Your task to perform on an android device: Open internet settings Image 0: 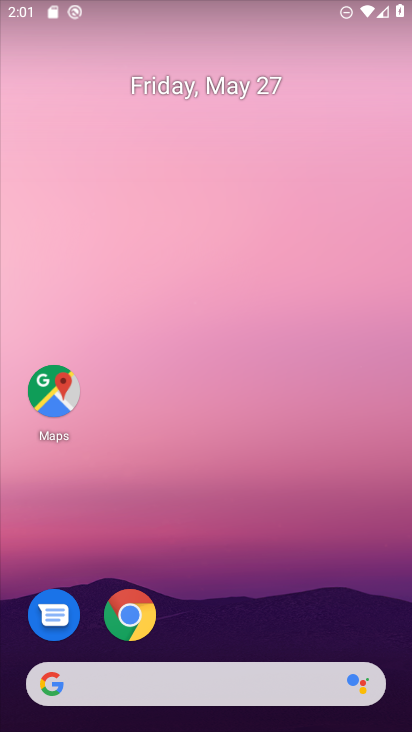
Step 0: drag from (176, 641) to (68, 51)
Your task to perform on an android device: Open internet settings Image 1: 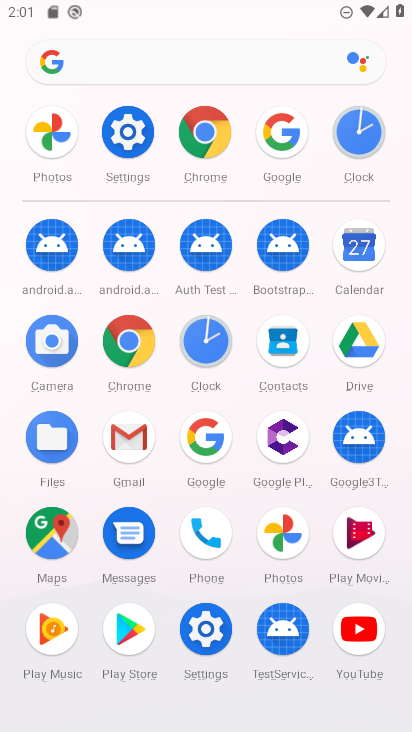
Step 1: click (219, 647)
Your task to perform on an android device: Open internet settings Image 2: 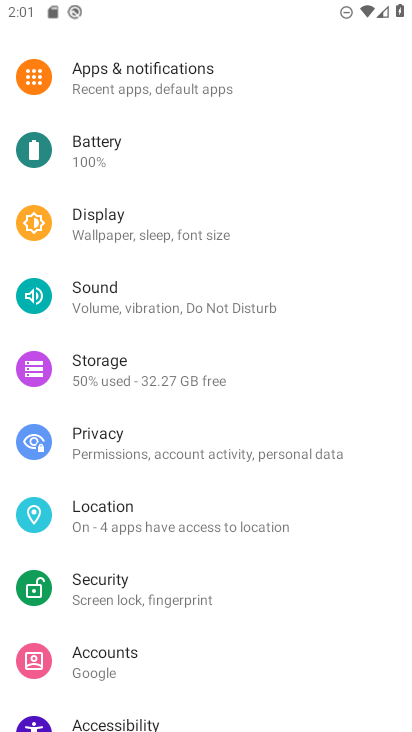
Step 2: drag from (210, 155) to (298, 702)
Your task to perform on an android device: Open internet settings Image 3: 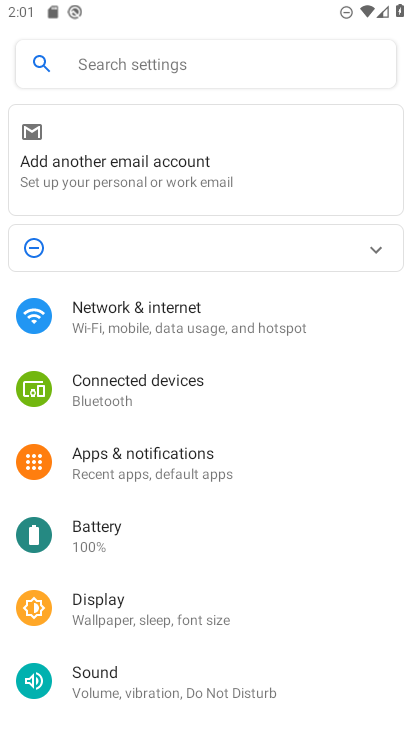
Step 3: click (188, 332)
Your task to perform on an android device: Open internet settings Image 4: 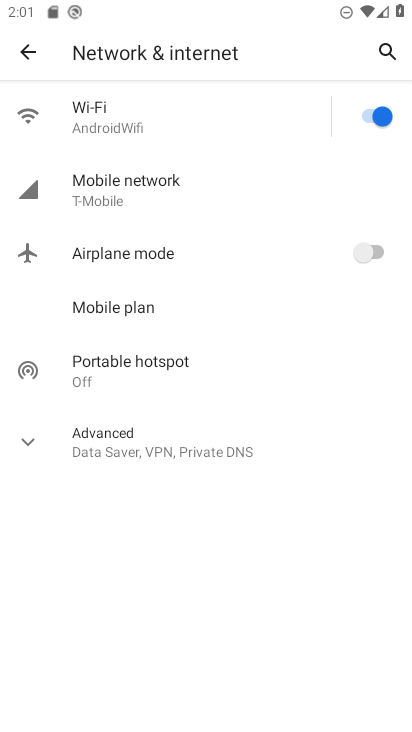
Step 4: click (174, 204)
Your task to perform on an android device: Open internet settings Image 5: 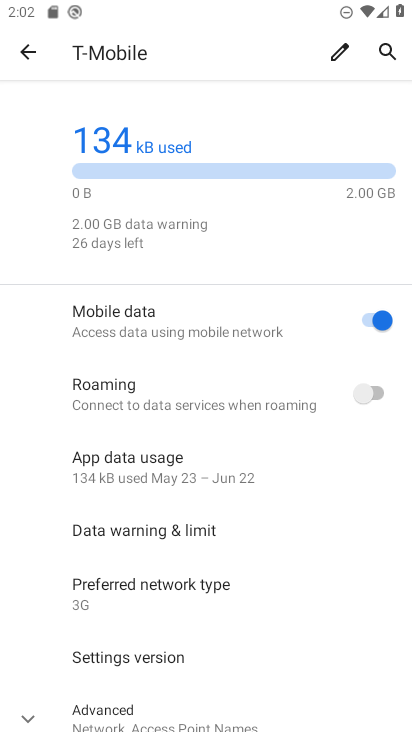
Step 5: click (265, 168)
Your task to perform on an android device: Open internet settings Image 6: 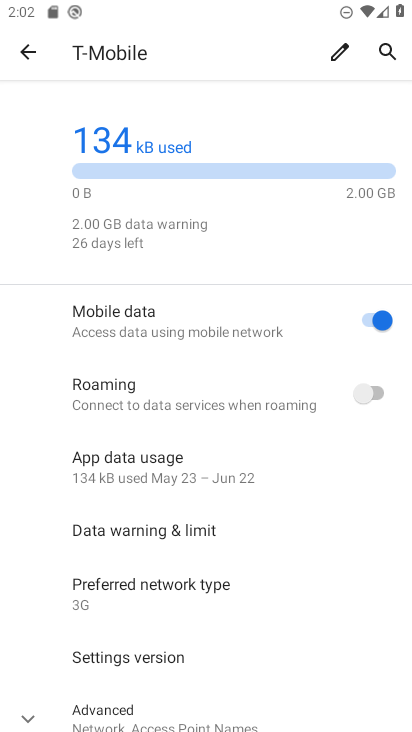
Step 6: task complete